Your task to perform on an android device: read, delete, or share a saved page in the chrome app Image 0: 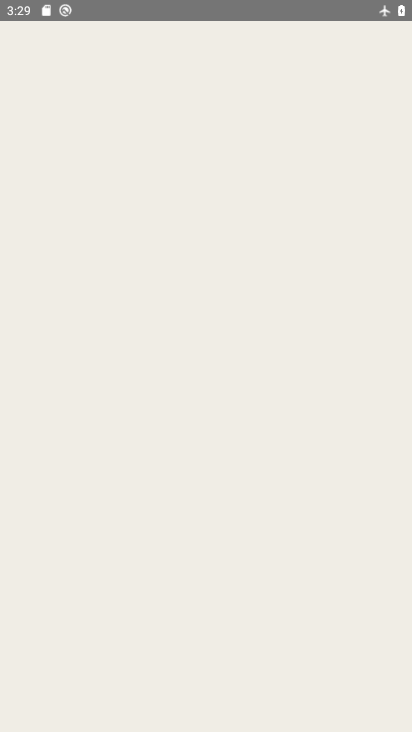
Step 0: drag from (242, 84) to (326, 165)
Your task to perform on an android device: read, delete, or share a saved page in the chrome app Image 1: 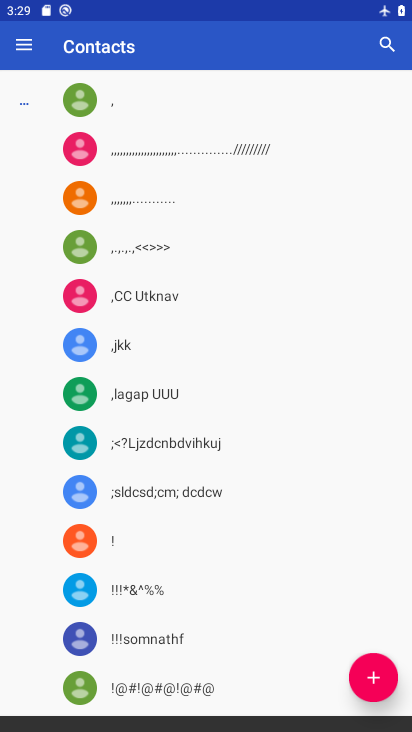
Step 1: press home button
Your task to perform on an android device: read, delete, or share a saved page in the chrome app Image 2: 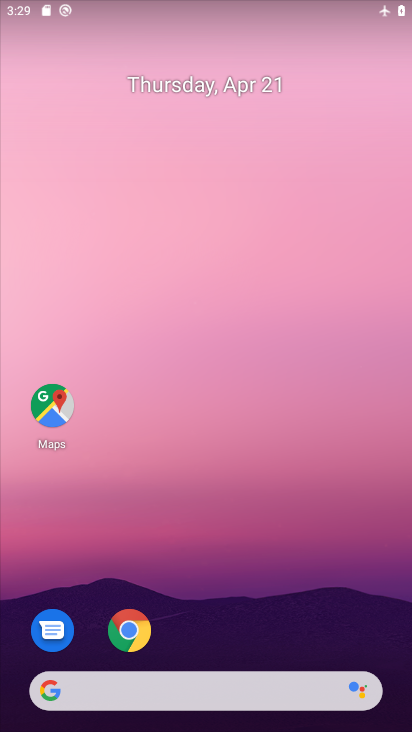
Step 2: click (135, 630)
Your task to perform on an android device: read, delete, or share a saved page in the chrome app Image 3: 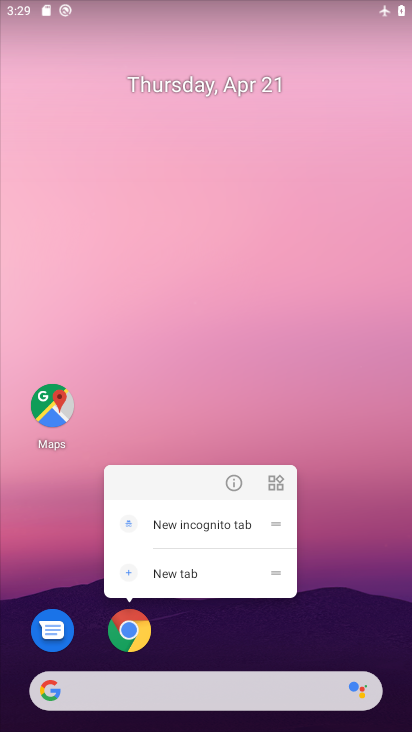
Step 3: click (235, 480)
Your task to perform on an android device: read, delete, or share a saved page in the chrome app Image 4: 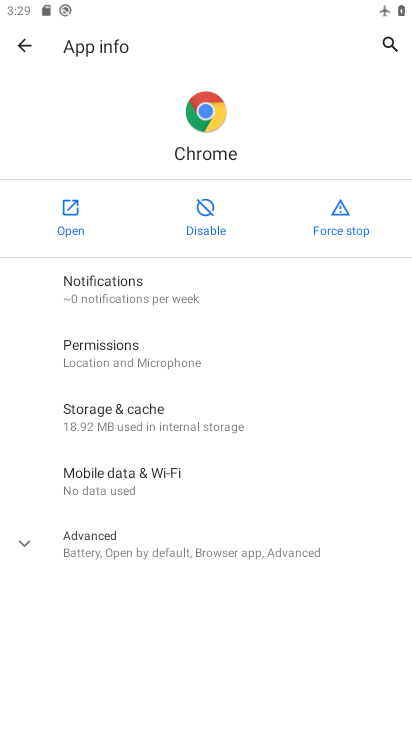
Step 4: click (67, 219)
Your task to perform on an android device: read, delete, or share a saved page in the chrome app Image 5: 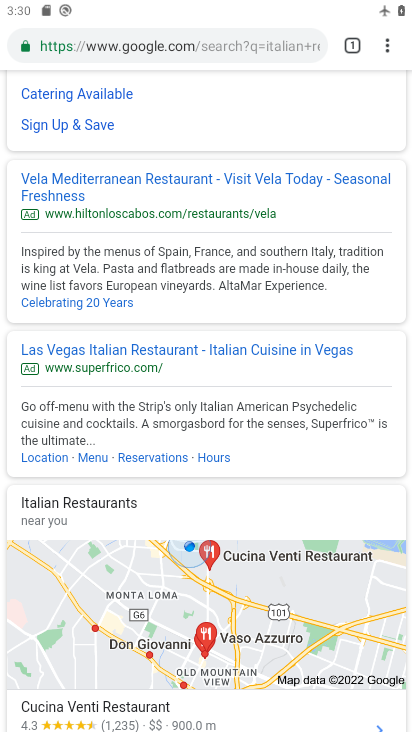
Step 5: task complete